Your task to perform on an android device: Go to Maps Image 0: 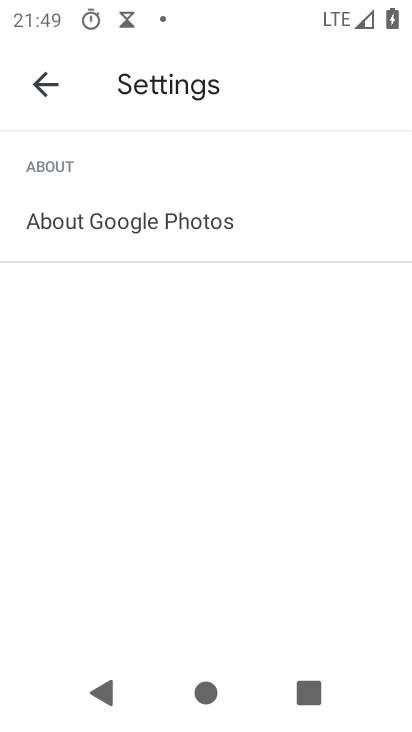
Step 0: press home button
Your task to perform on an android device: Go to Maps Image 1: 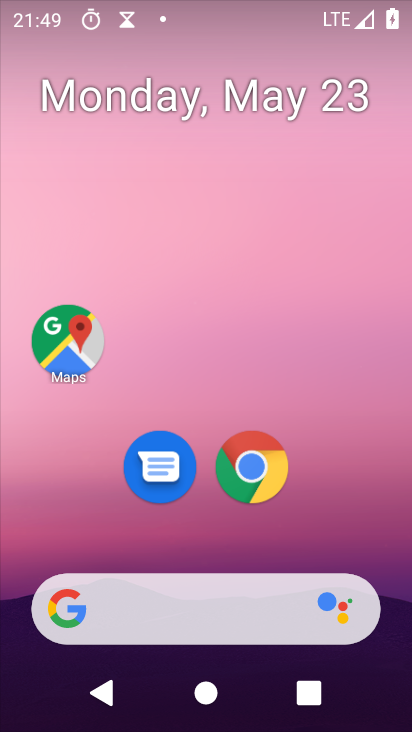
Step 1: click (74, 360)
Your task to perform on an android device: Go to Maps Image 2: 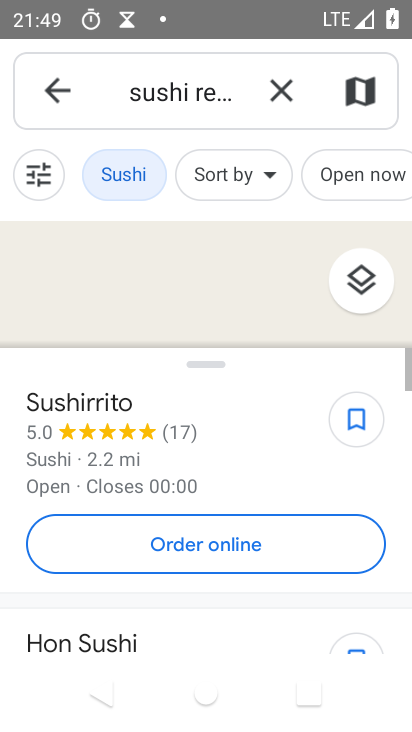
Step 2: task complete